Your task to perform on an android device: Empty the shopping cart on newegg.com. Add acer nitro to the cart on newegg.com, then select checkout. Image 0: 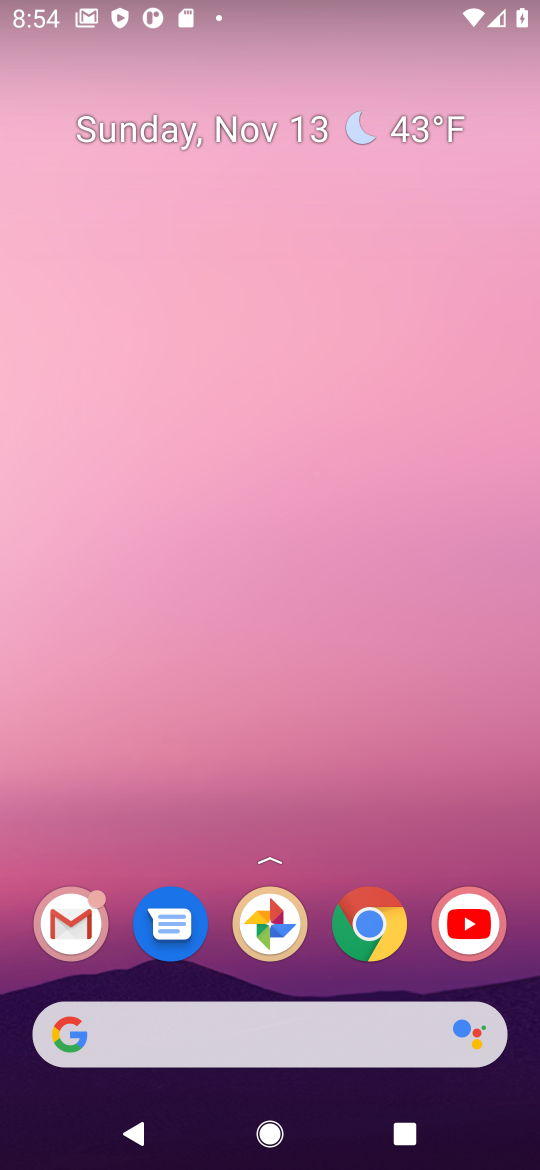
Step 0: click (377, 924)
Your task to perform on an android device: Empty the shopping cart on newegg.com. Add acer nitro to the cart on newegg.com, then select checkout. Image 1: 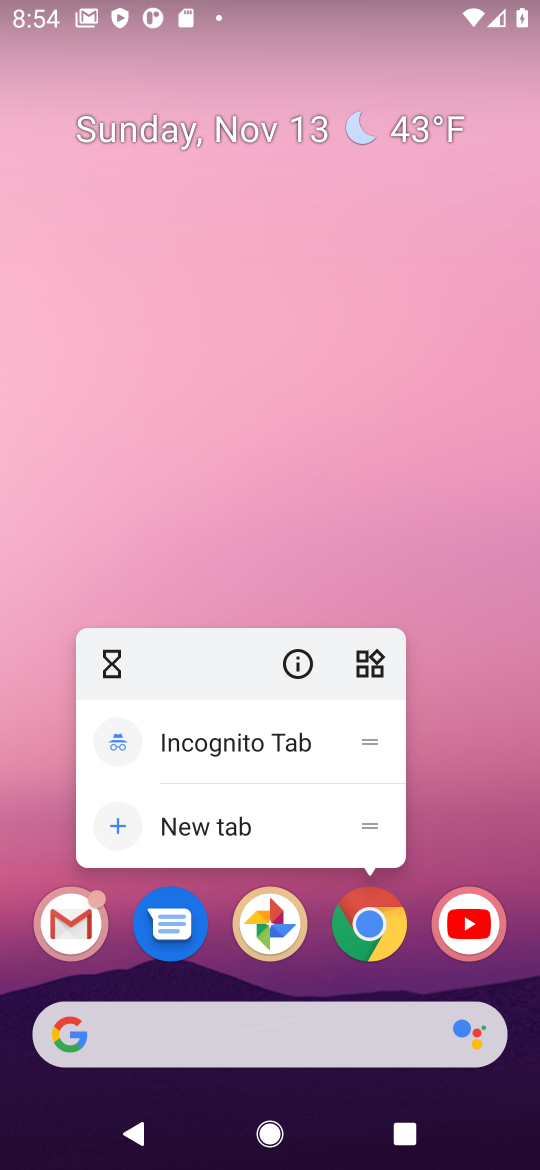
Step 1: click (359, 929)
Your task to perform on an android device: Empty the shopping cart on newegg.com. Add acer nitro to the cart on newegg.com, then select checkout. Image 2: 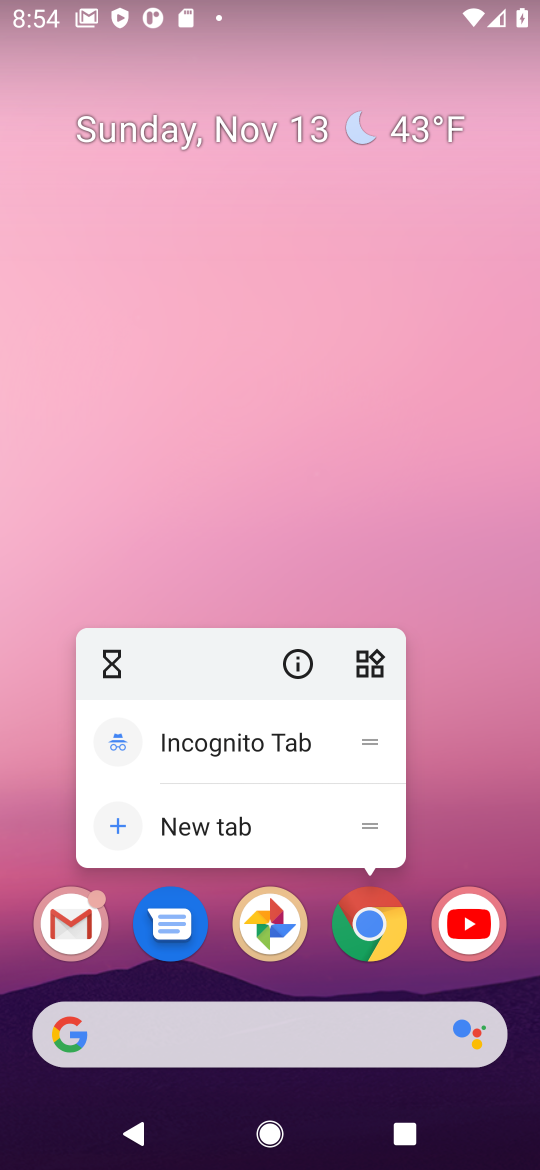
Step 2: click (359, 929)
Your task to perform on an android device: Empty the shopping cart on newegg.com. Add acer nitro to the cart on newegg.com, then select checkout. Image 3: 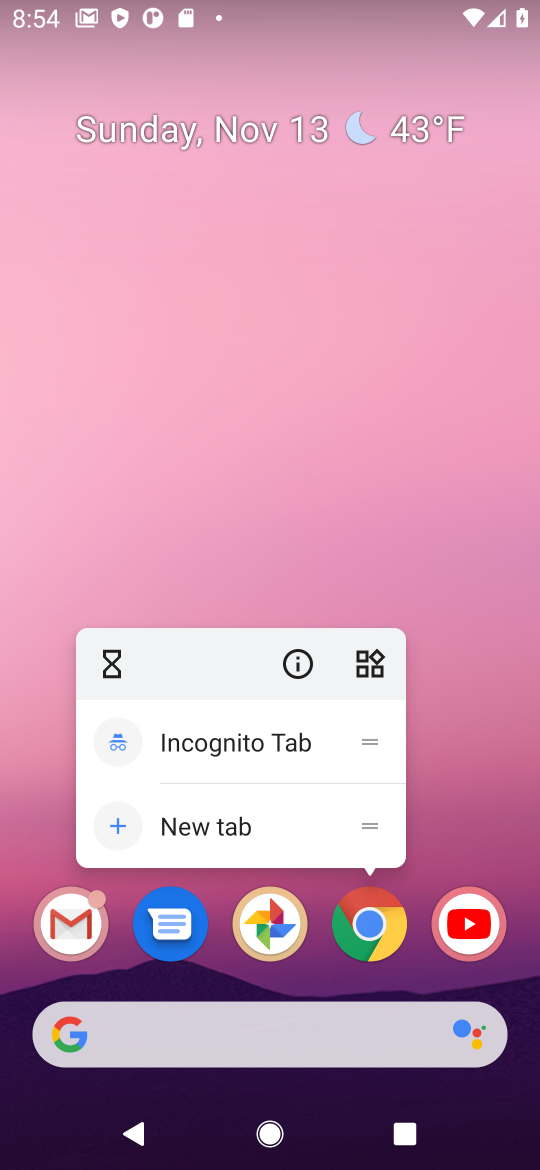
Step 3: click (359, 929)
Your task to perform on an android device: Empty the shopping cart on newegg.com. Add acer nitro to the cart on newegg.com, then select checkout. Image 4: 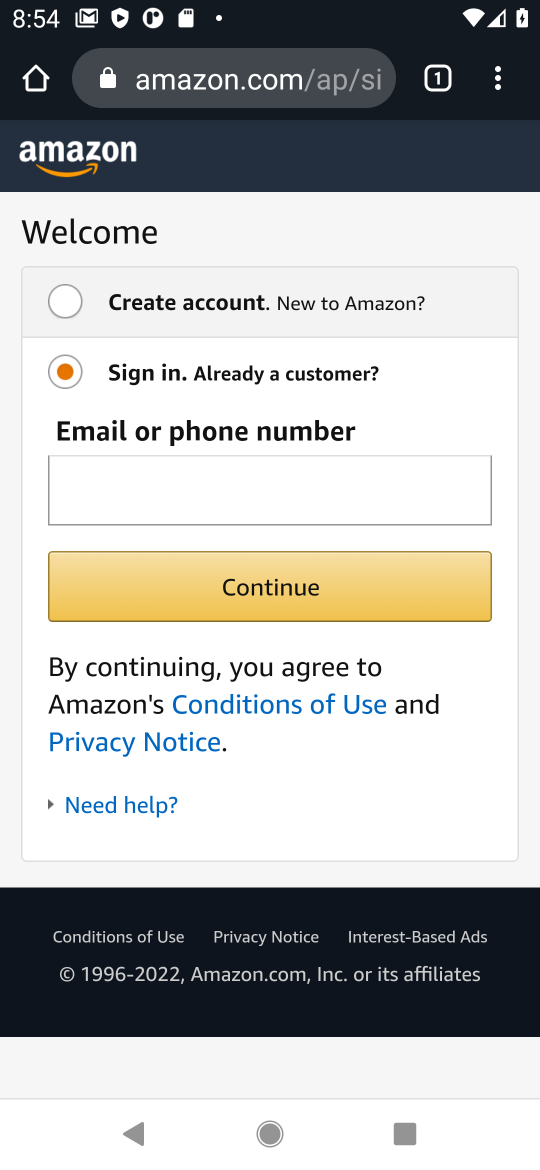
Step 4: click (330, 66)
Your task to perform on an android device: Empty the shopping cart on newegg.com. Add acer nitro to the cart on newegg.com, then select checkout. Image 5: 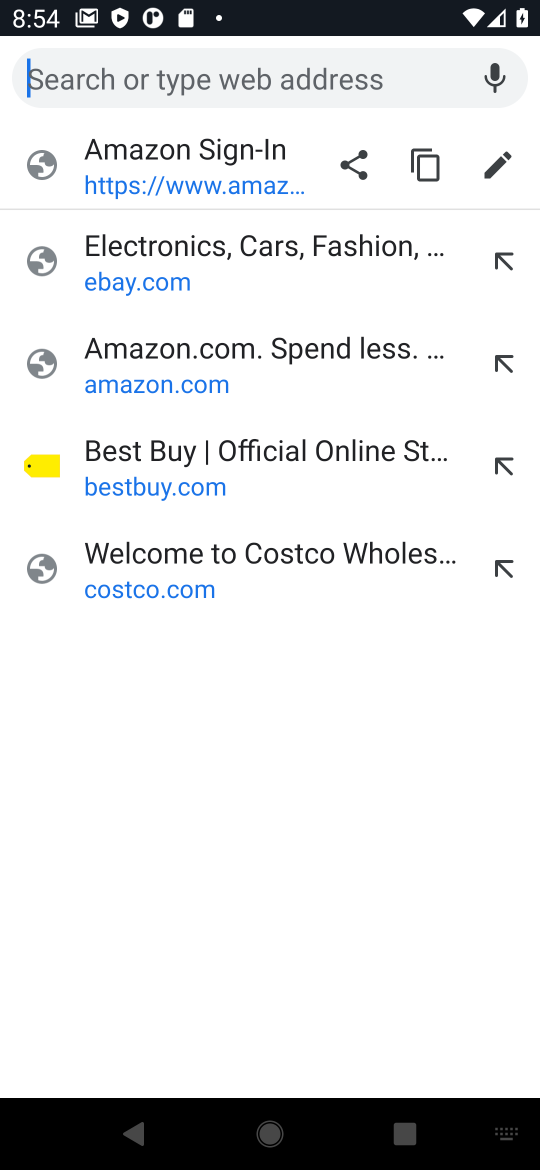
Step 5: type "newegg.com"
Your task to perform on an android device: Empty the shopping cart on newegg.com. Add acer nitro to the cart on newegg.com, then select checkout. Image 6: 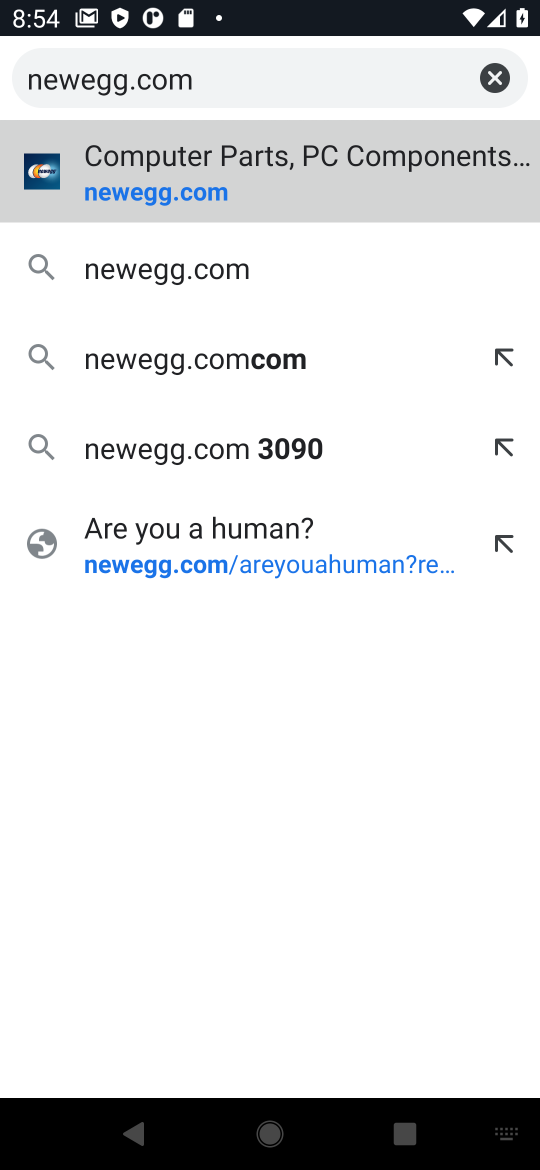
Step 6: press enter
Your task to perform on an android device: Empty the shopping cart on newegg.com. Add acer nitro to the cart on newegg.com, then select checkout. Image 7: 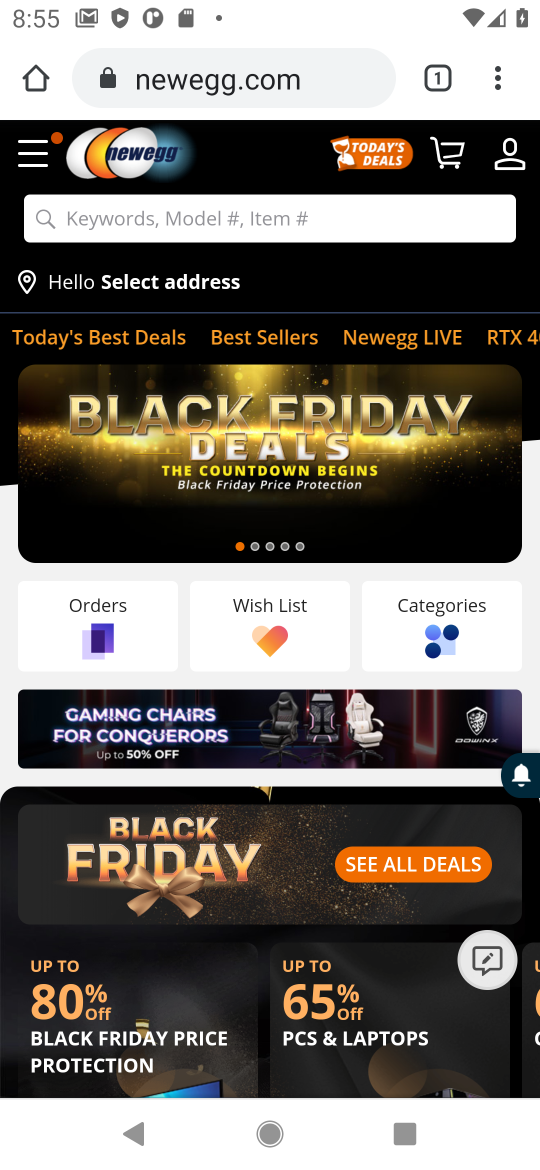
Step 7: click (244, 211)
Your task to perform on an android device: Empty the shopping cart on newegg.com. Add acer nitro to the cart on newegg.com, then select checkout. Image 8: 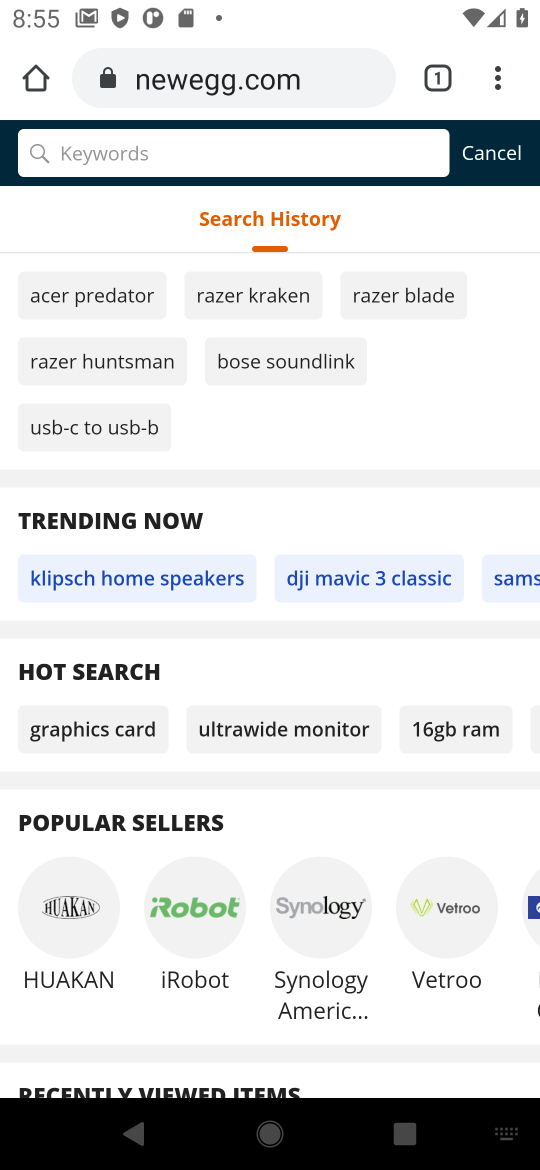
Step 8: type "acer nitro "
Your task to perform on an android device: Empty the shopping cart on newegg.com. Add acer nitro to the cart on newegg.com, then select checkout. Image 9: 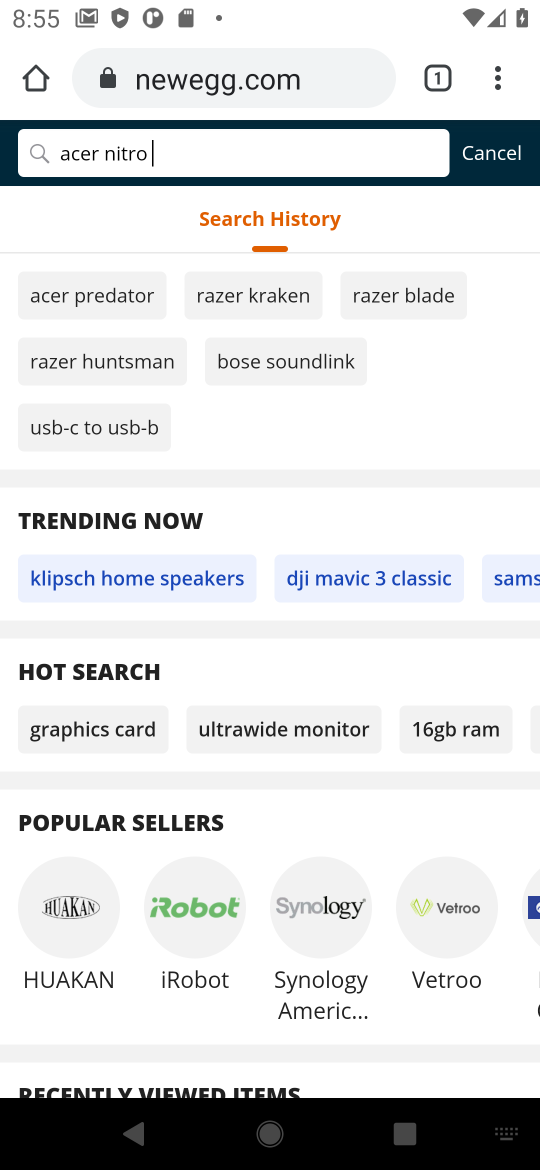
Step 9: press enter
Your task to perform on an android device: Empty the shopping cart on newegg.com. Add acer nitro to the cart on newegg.com, then select checkout. Image 10: 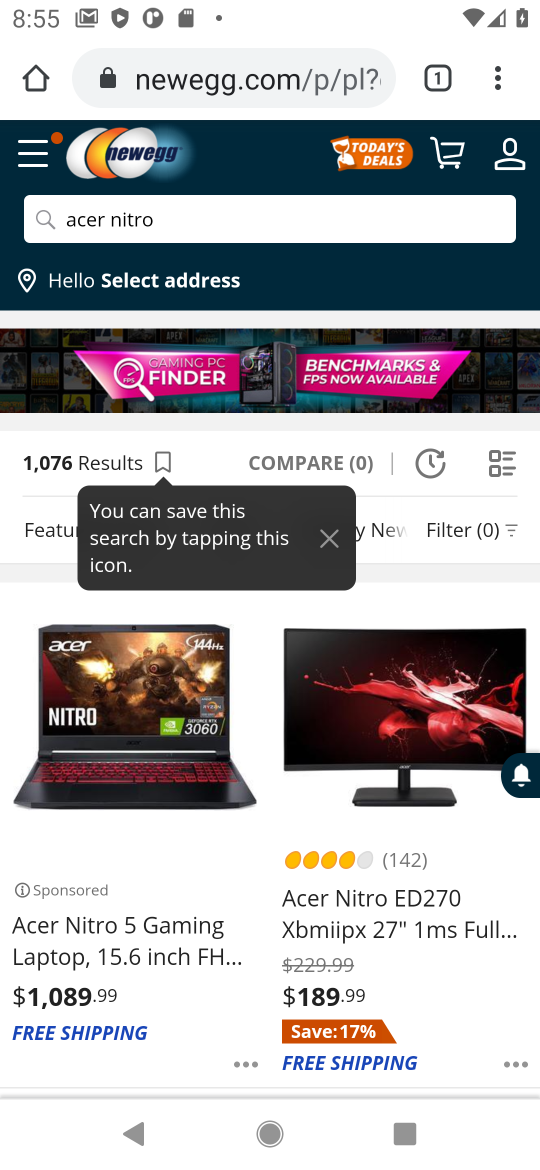
Step 10: click (197, 929)
Your task to perform on an android device: Empty the shopping cart on newegg.com. Add acer nitro to the cart on newegg.com, then select checkout. Image 11: 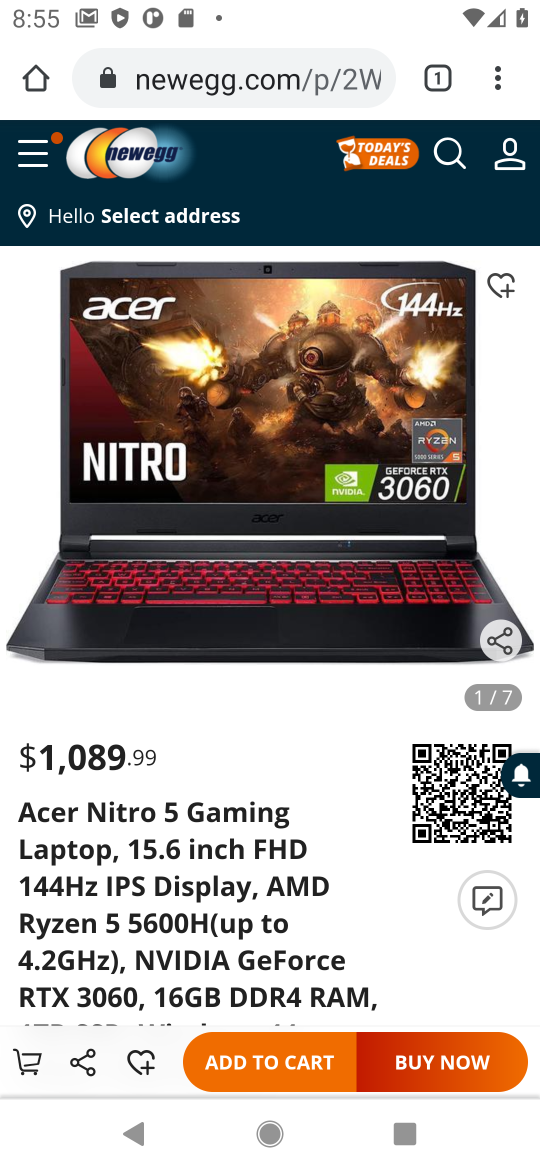
Step 11: click (256, 1061)
Your task to perform on an android device: Empty the shopping cart on newegg.com. Add acer nitro to the cart on newegg.com, then select checkout. Image 12: 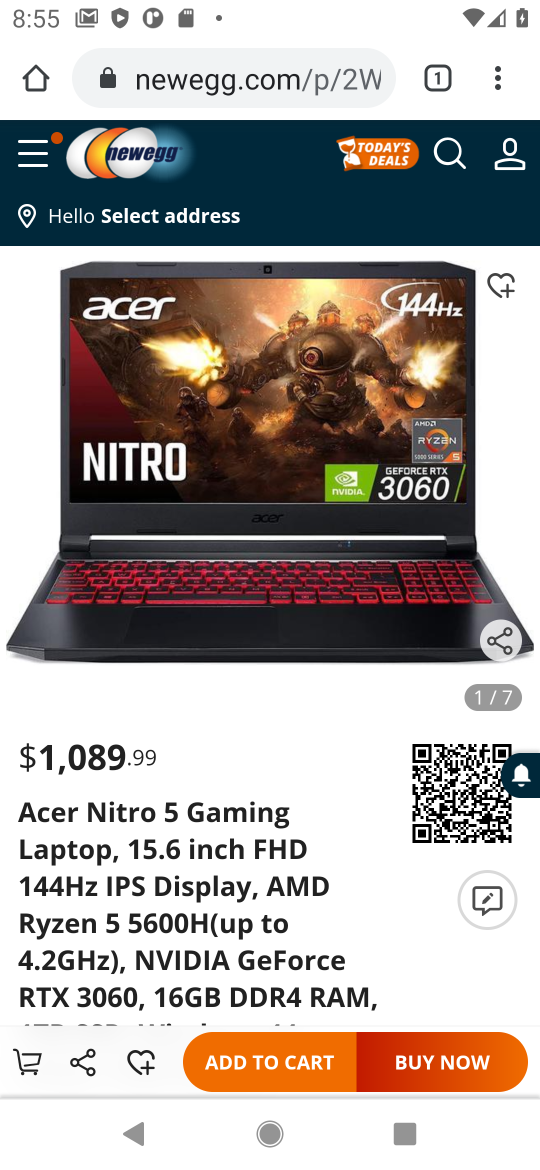
Step 12: click (259, 1059)
Your task to perform on an android device: Empty the shopping cart on newegg.com. Add acer nitro to the cart on newegg.com, then select checkout. Image 13: 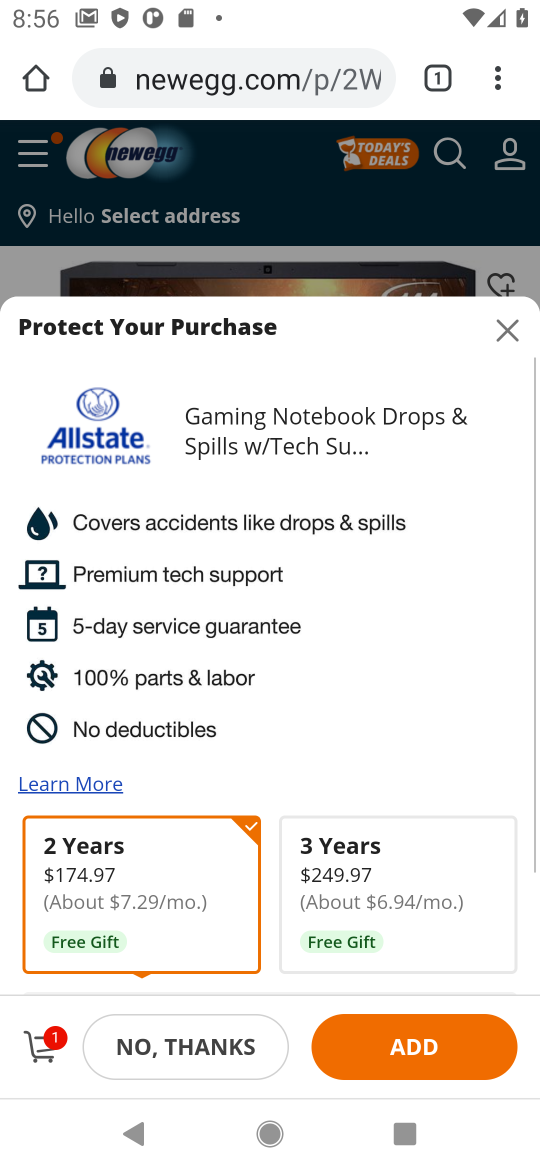
Step 13: click (48, 1039)
Your task to perform on an android device: Empty the shopping cart on newegg.com. Add acer nitro to the cart on newegg.com, then select checkout. Image 14: 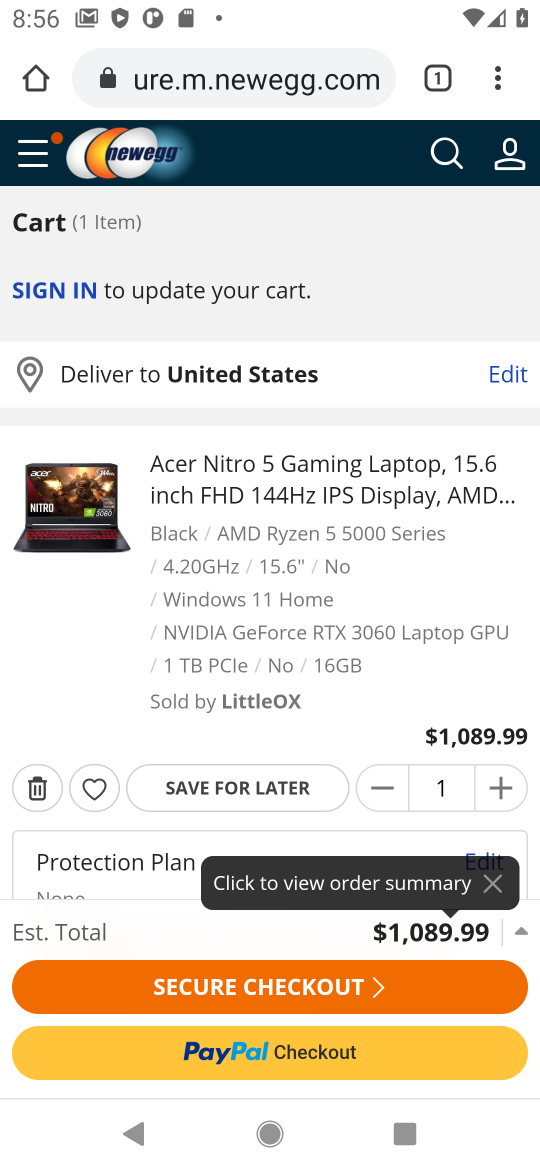
Step 14: click (315, 987)
Your task to perform on an android device: Empty the shopping cart on newegg.com. Add acer nitro to the cart on newegg.com, then select checkout. Image 15: 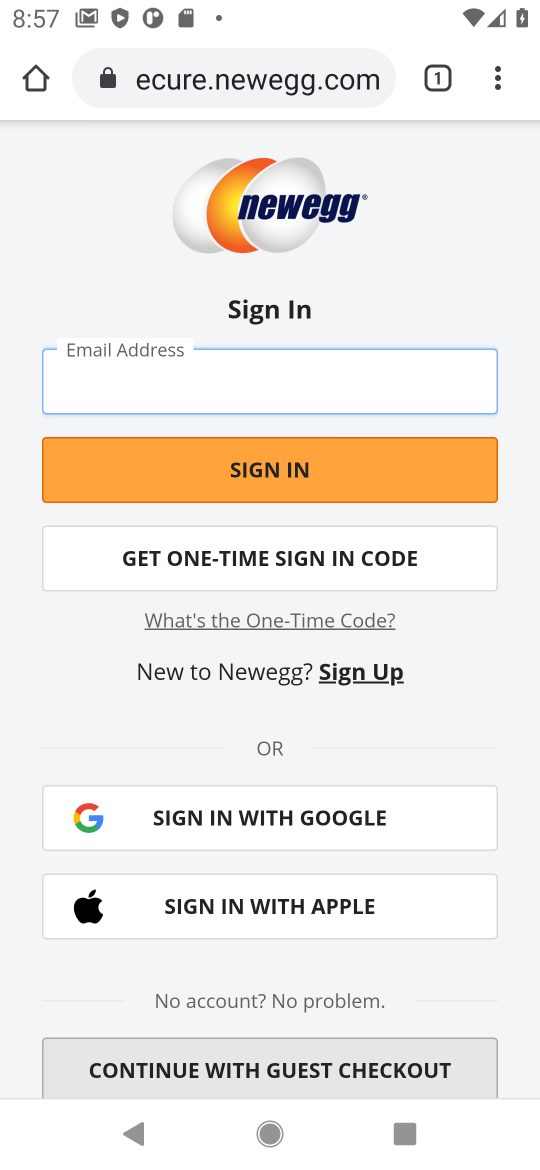
Step 15: task complete